Your task to perform on an android device: toggle sleep mode Image 0: 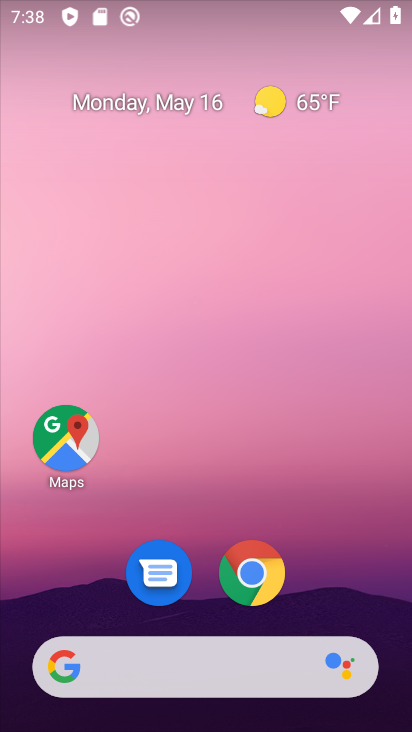
Step 0: drag from (327, 604) to (310, 0)
Your task to perform on an android device: toggle sleep mode Image 1: 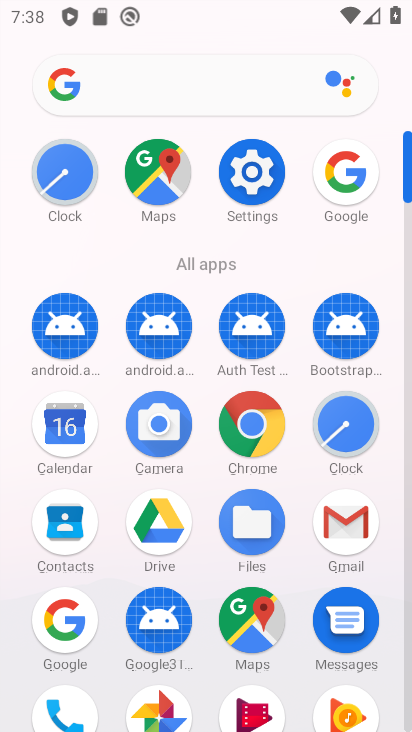
Step 1: click (247, 174)
Your task to perform on an android device: toggle sleep mode Image 2: 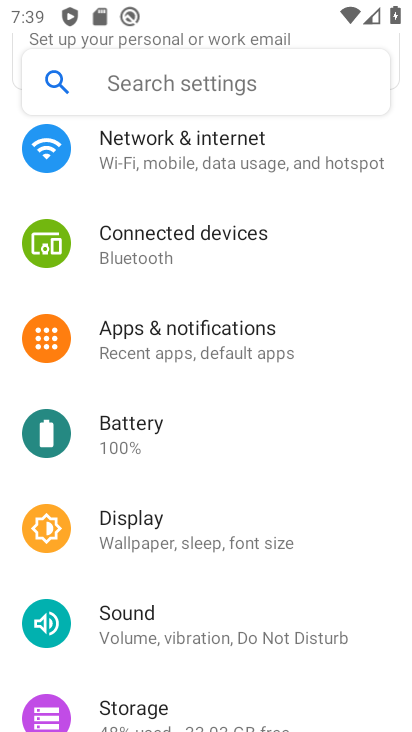
Step 2: drag from (232, 558) to (226, 294)
Your task to perform on an android device: toggle sleep mode Image 3: 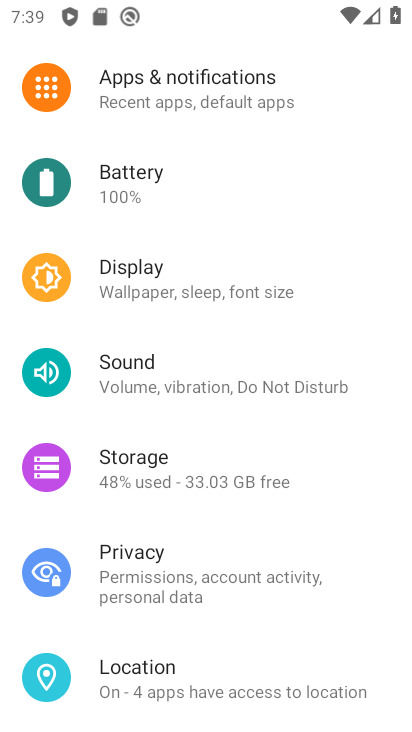
Step 3: click (213, 301)
Your task to perform on an android device: toggle sleep mode Image 4: 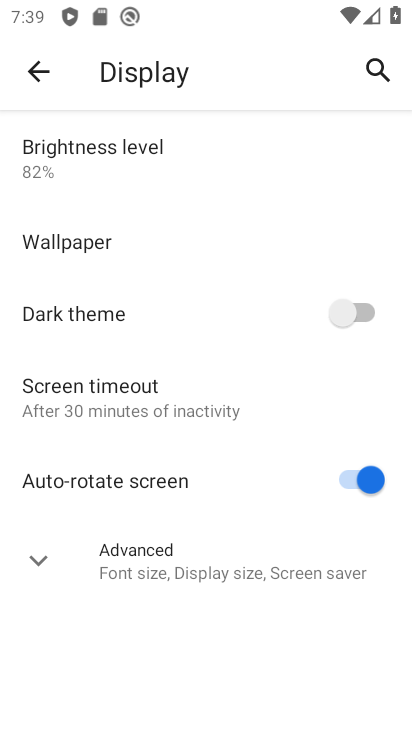
Step 4: click (211, 559)
Your task to perform on an android device: toggle sleep mode Image 5: 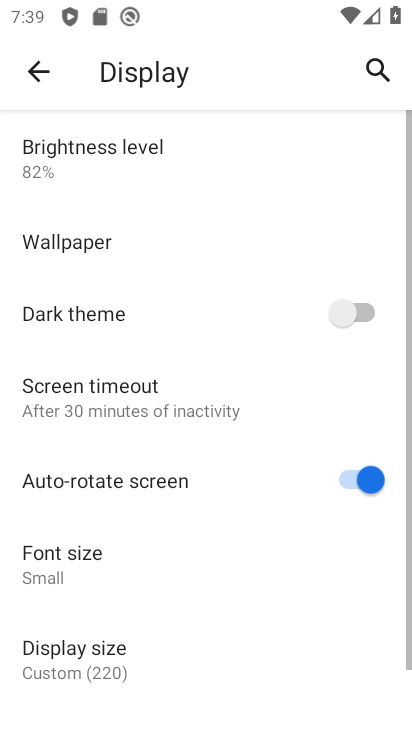
Step 5: drag from (203, 538) to (194, 169)
Your task to perform on an android device: toggle sleep mode Image 6: 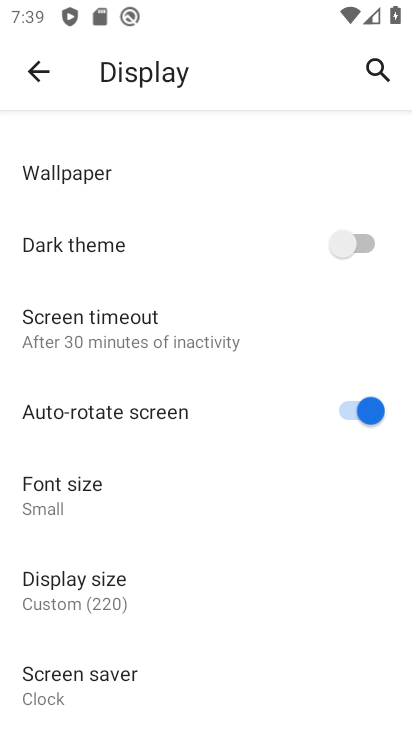
Step 6: click (39, 81)
Your task to perform on an android device: toggle sleep mode Image 7: 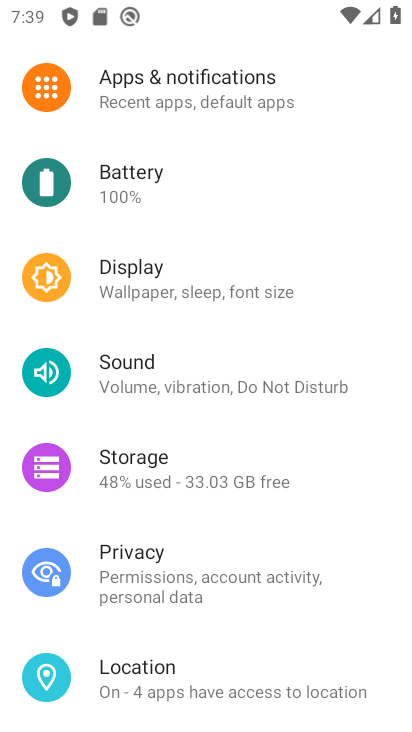
Step 7: task complete